Your task to perform on an android device: turn on showing notifications on the lock screen Image 0: 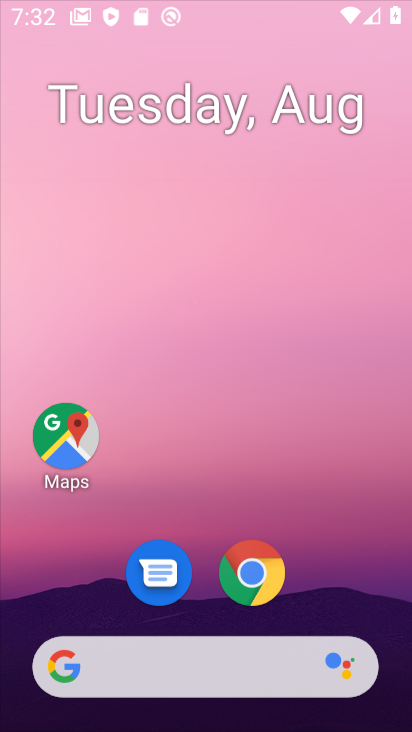
Step 0: press home button
Your task to perform on an android device: turn on showing notifications on the lock screen Image 1: 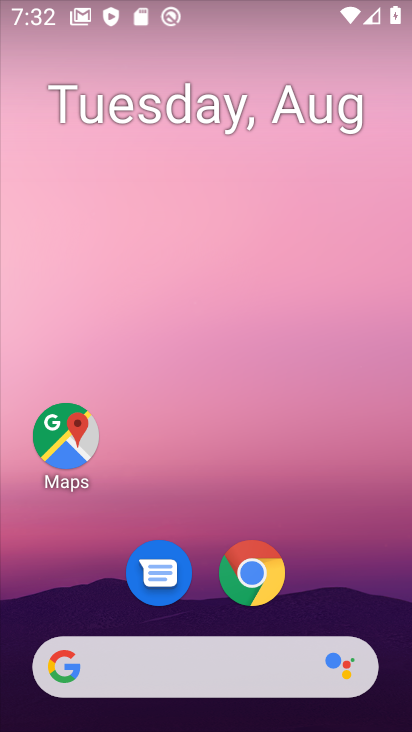
Step 1: drag from (205, 619) to (277, 66)
Your task to perform on an android device: turn on showing notifications on the lock screen Image 2: 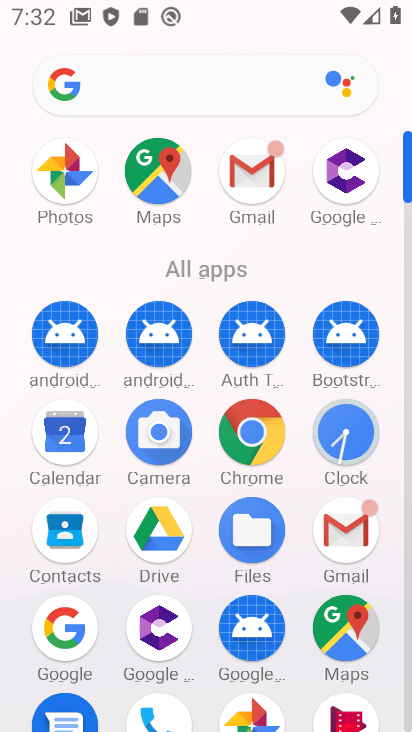
Step 2: drag from (205, 577) to (240, 94)
Your task to perform on an android device: turn on showing notifications on the lock screen Image 3: 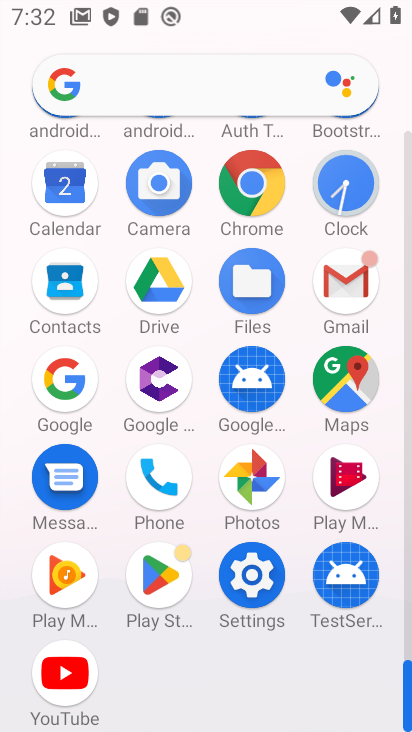
Step 3: click (248, 570)
Your task to perform on an android device: turn on showing notifications on the lock screen Image 4: 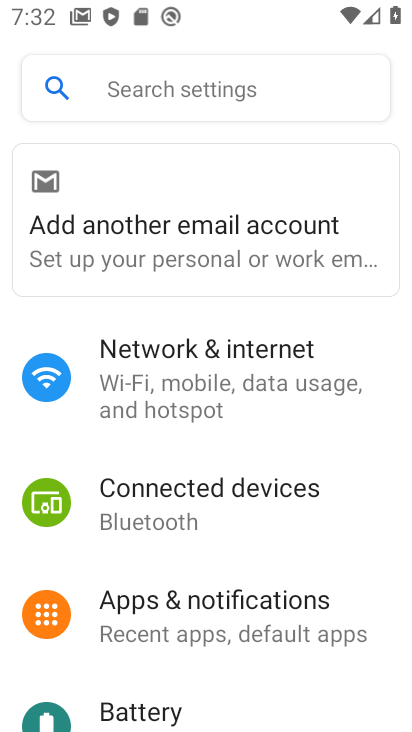
Step 4: click (228, 615)
Your task to perform on an android device: turn on showing notifications on the lock screen Image 5: 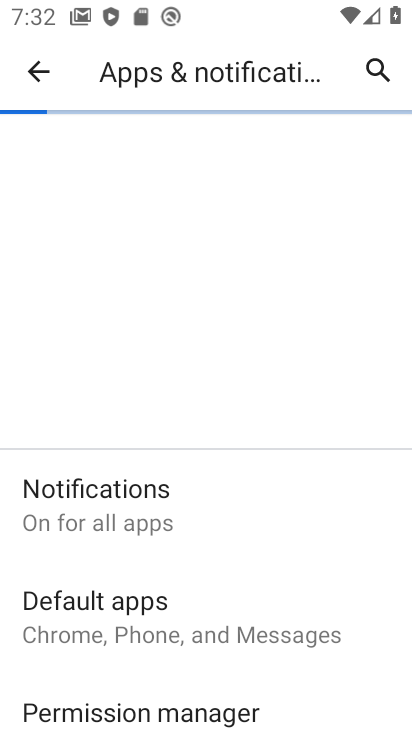
Step 5: click (179, 501)
Your task to perform on an android device: turn on showing notifications on the lock screen Image 6: 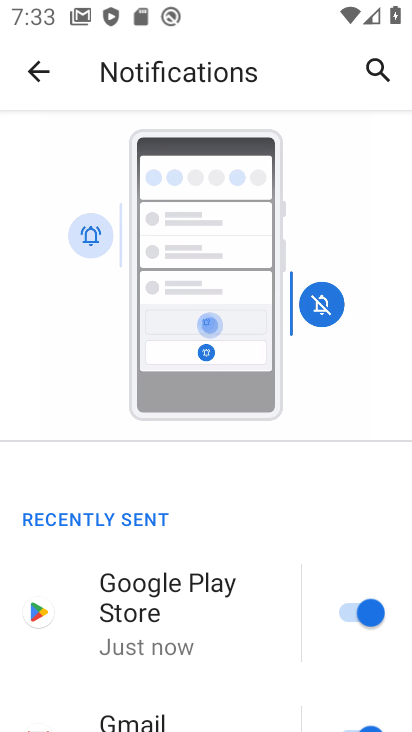
Step 6: drag from (218, 688) to (241, 85)
Your task to perform on an android device: turn on showing notifications on the lock screen Image 7: 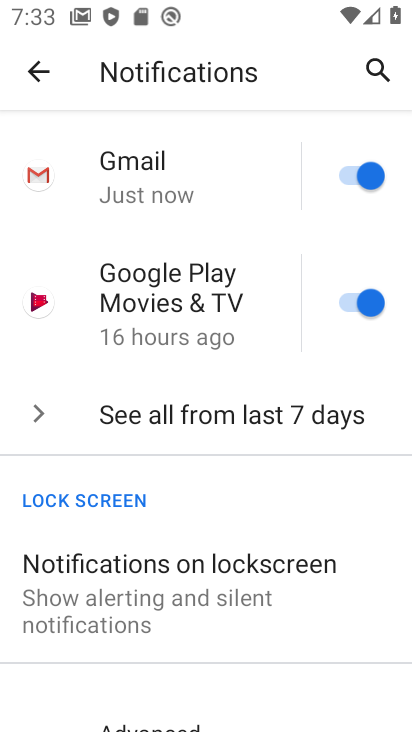
Step 7: click (264, 581)
Your task to perform on an android device: turn on showing notifications on the lock screen Image 8: 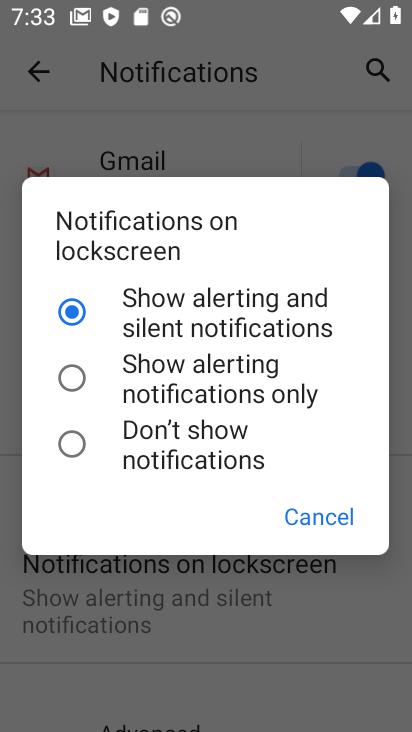
Step 8: click (71, 379)
Your task to perform on an android device: turn on showing notifications on the lock screen Image 9: 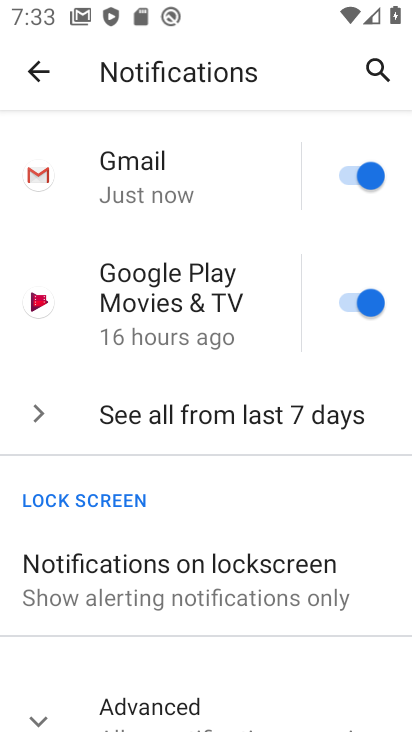
Step 9: task complete